Your task to perform on an android device: Open Google Chrome and open the bookmarks view Image 0: 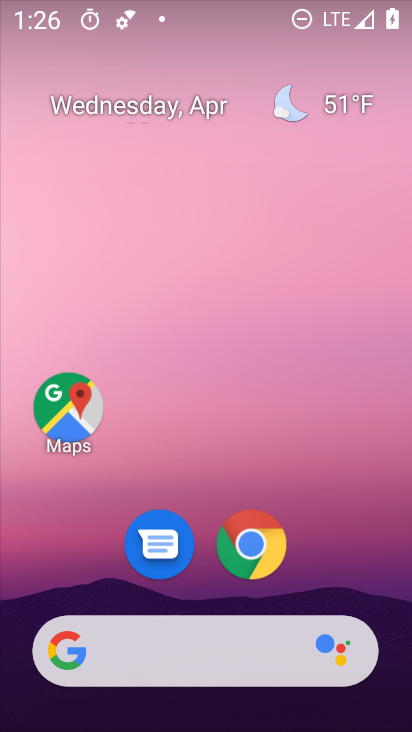
Step 0: drag from (334, 556) to (330, 167)
Your task to perform on an android device: Open Google Chrome and open the bookmarks view Image 1: 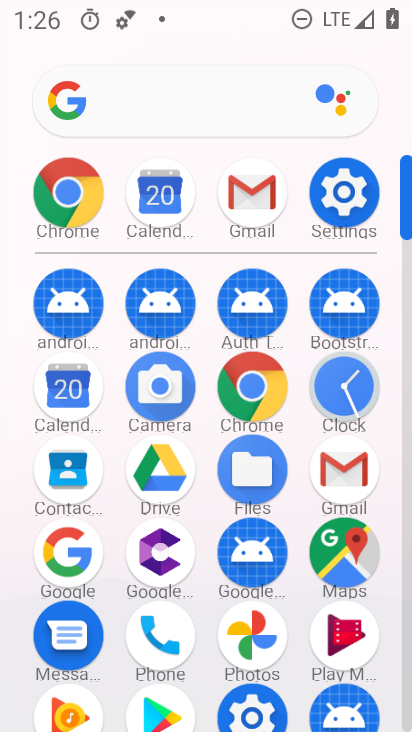
Step 1: click (258, 389)
Your task to perform on an android device: Open Google Chrome and open the bookmarks view Image 2: 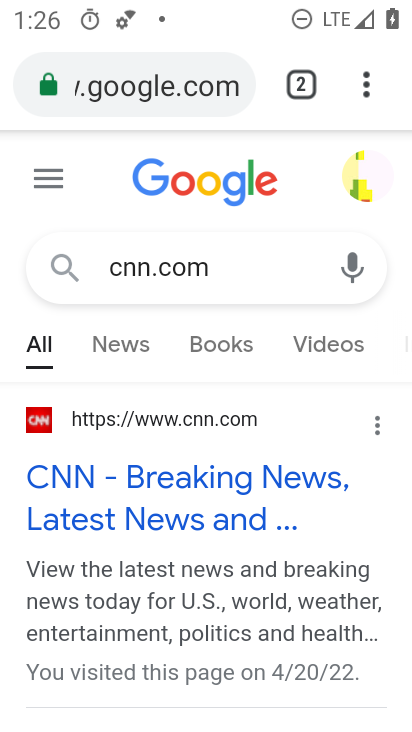
Step 2: click (364, 86)
Your task to perform on an android device: Open Google Chrome and open the bookmarks view Image 3: 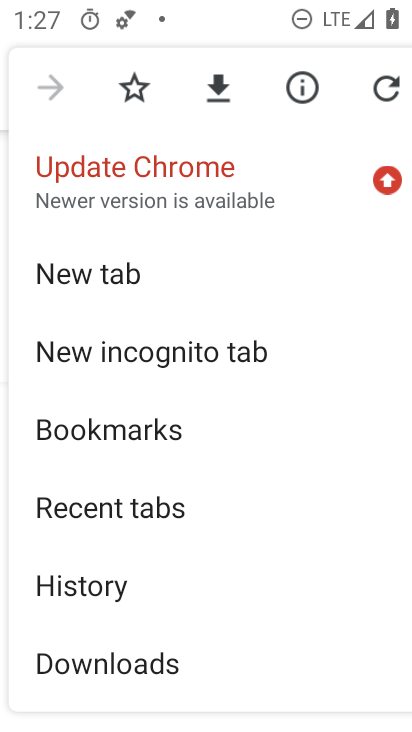
Step 3: click (163, 434)
Your task to perform on an android device: Open Google Chrome and open the bookmarks view Image 4: 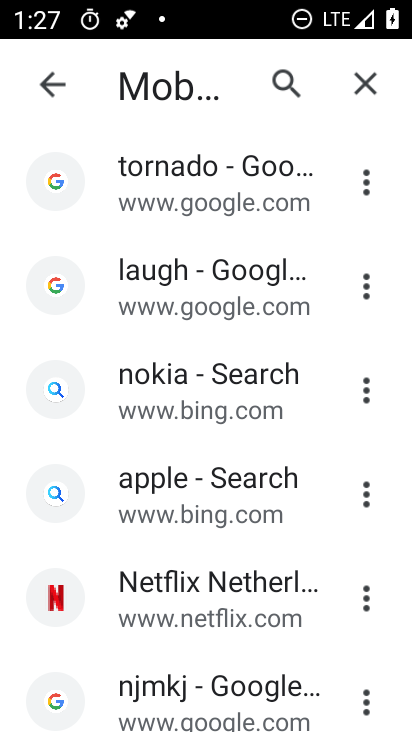
Step 4: task complete